Your task to perform on an android device: Go to Wikipedia Image 0: 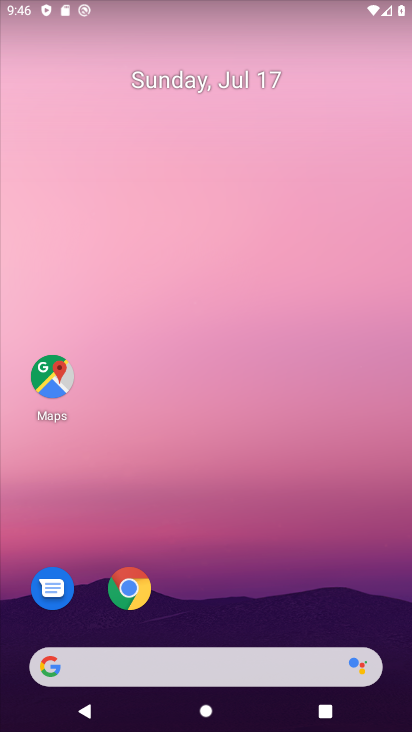
Step 0: click (121, 598)
Your task to perform on an android device: Go to Wikipedia Image 1: 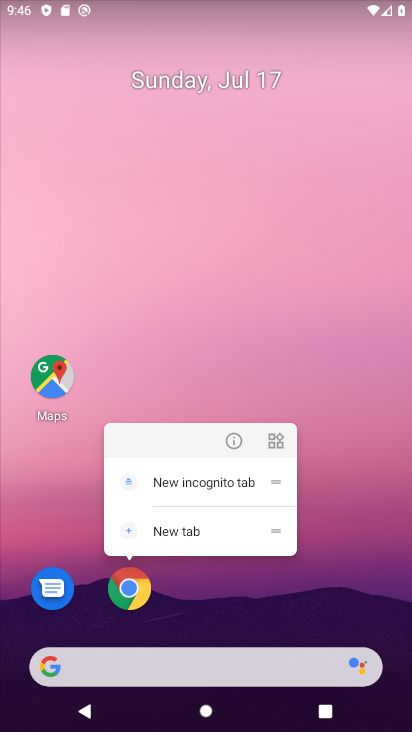
Step 1: click (121, 598)
Your task to perform on an android device: Go to Wikipedia Image 2: 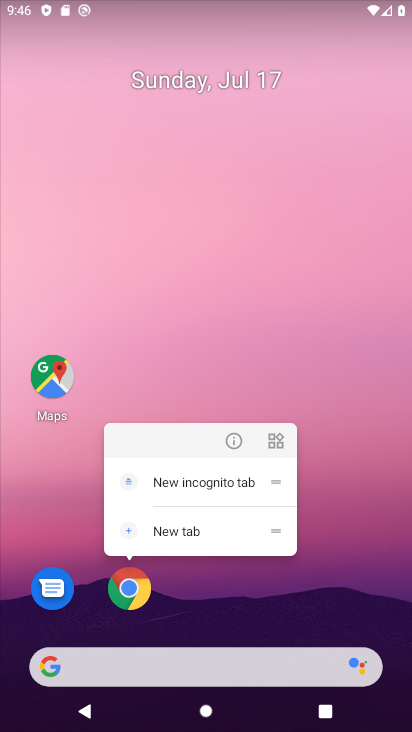
Step 2: click (121, 598)
Your task to perform on an android device: Go to Wikipedia Image 3: 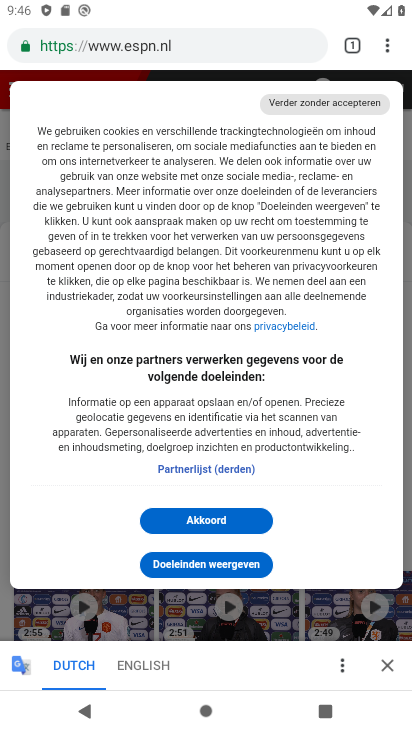
Step 3: click (345, 46)
Your task to perform on an android device: Go to Wikipedia Image 4: 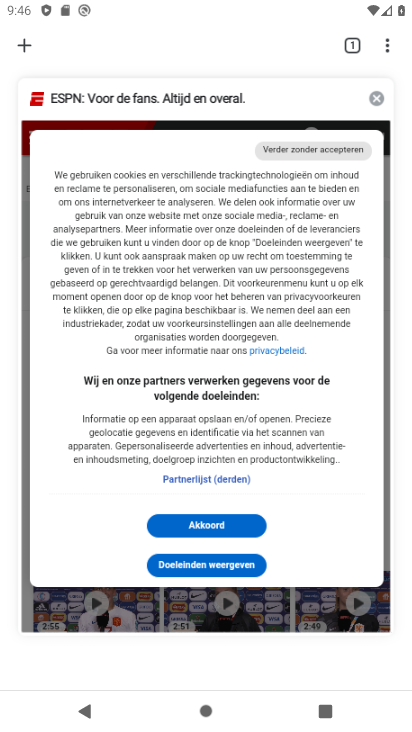
Step 4: click (25, 42)
Your task to perform on an android device: Go to Wikipedia Image 5: 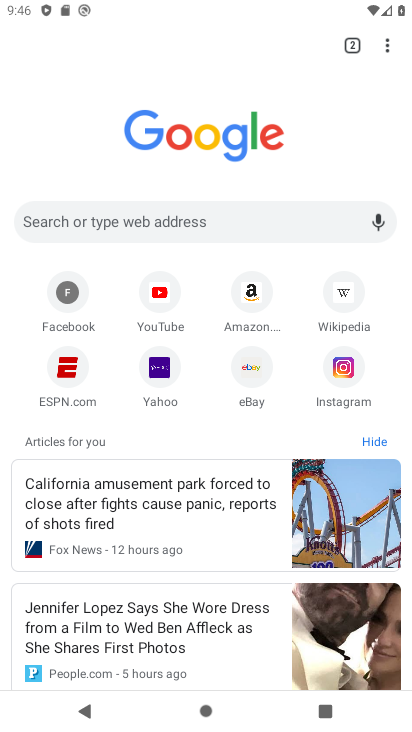
Step 5: click (356, 291)
Your task to perform on an android device: Go to Wikipedia Image 6: 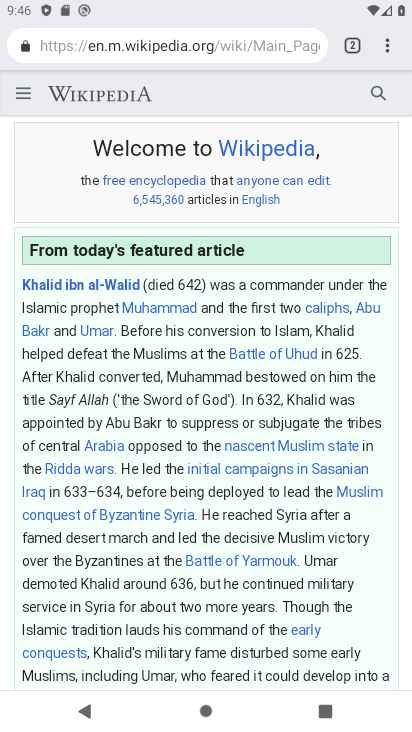
Step 6: task complete